Your task to perform on an android device: set default search engine in the chrome app Image 0: 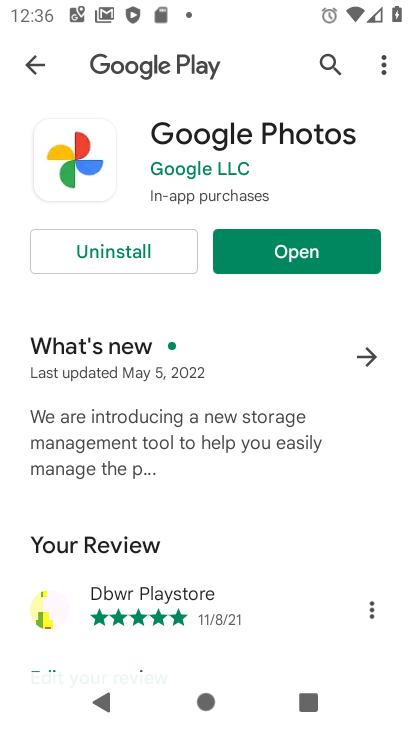
Step 0: press home button
Your task to perform on an android device: set default search engine in the chrome app Image 1: 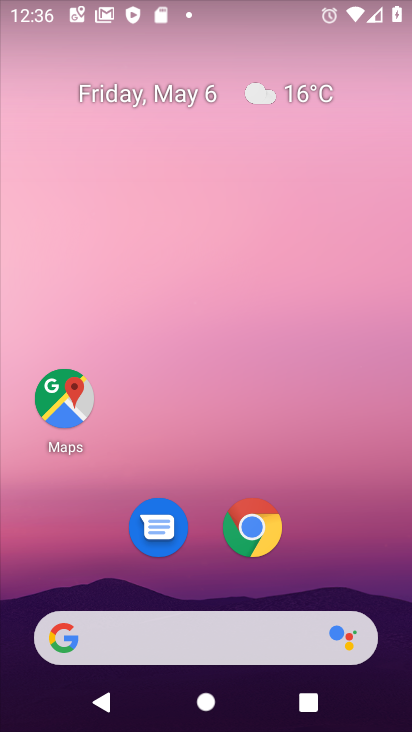
Step 1: drag from (341, 534) to (73, 122)
Your task to perform on an android device: set default search engine in the chrome app Image 2: 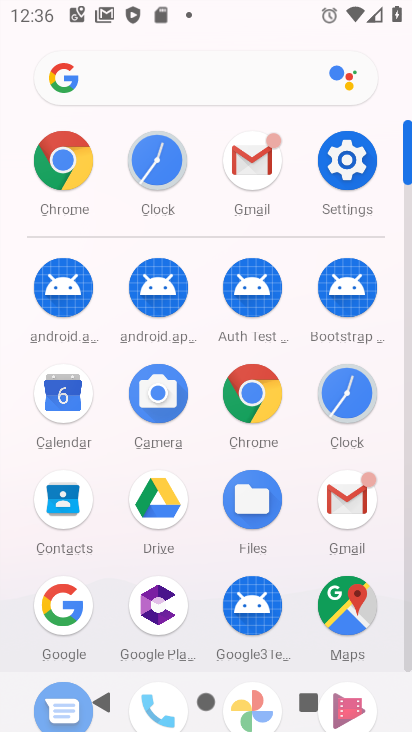
Step 2: click (57, 164)
Your task to perform on an android device: set default search engine in the chrome app Image 3: 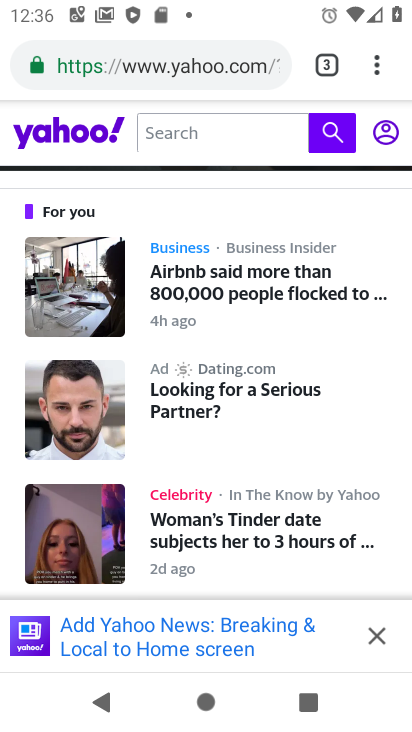
Step 3: drag from (377, 62) to (151, 587)
Your task to perform on an android device: set default search engine in the chrome app Image 4: 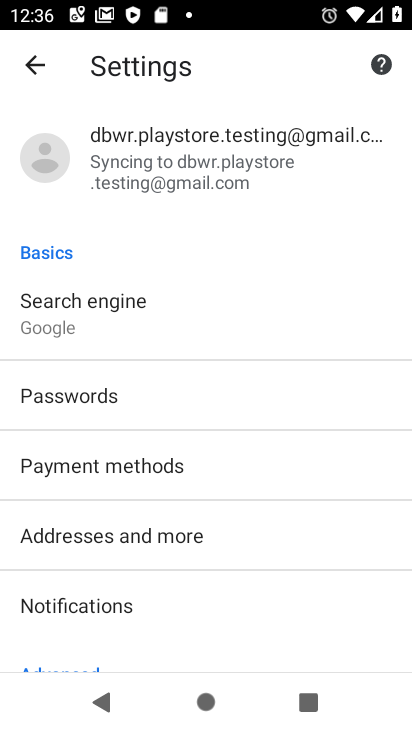
Step 4: click (72, 319)
Your task to perform on an android device: set default search engine in the chrome app Image 5: 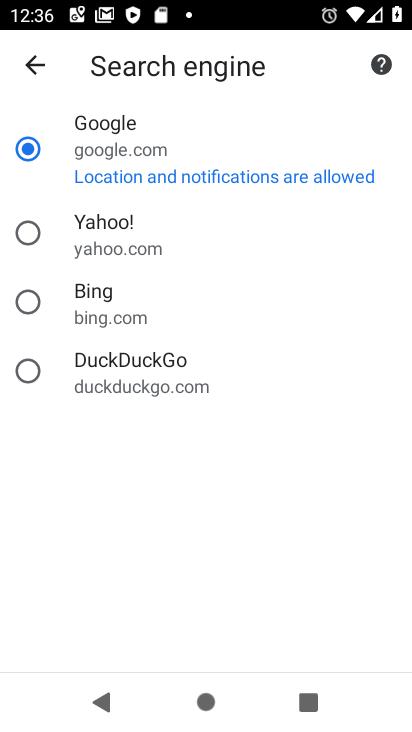
Step 5: click (77, 378)
Your task to perform on an android device: set default search engine in the chrome app Image 6: 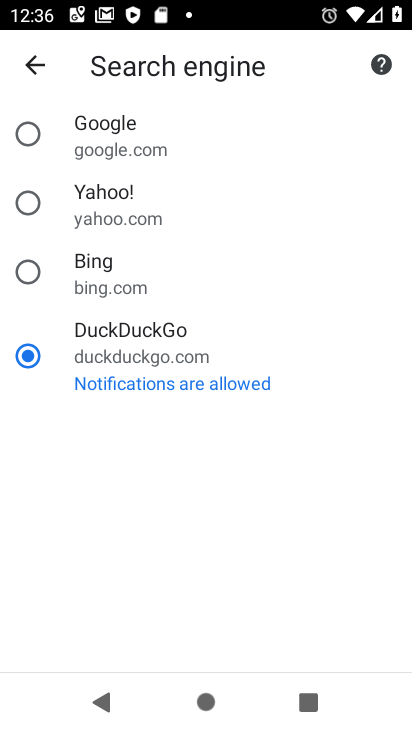
Step 6: task complete